Your task to perform on an android device: Open the calendar and show me this week's events Image 0: 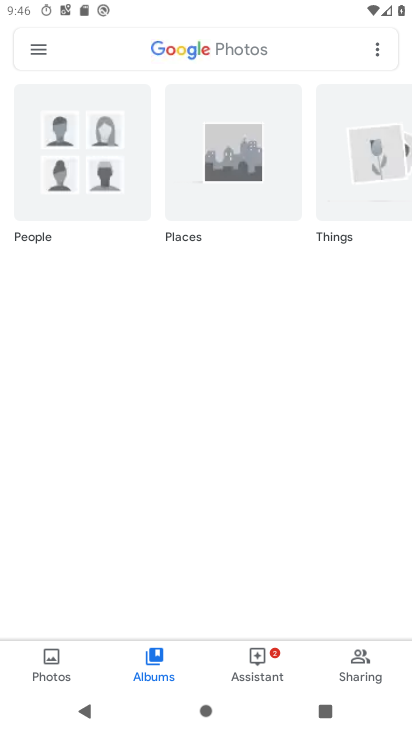
Step 0: press home button
Your task to perform on an android device: Open the calendar and show me this week's events Image 1: 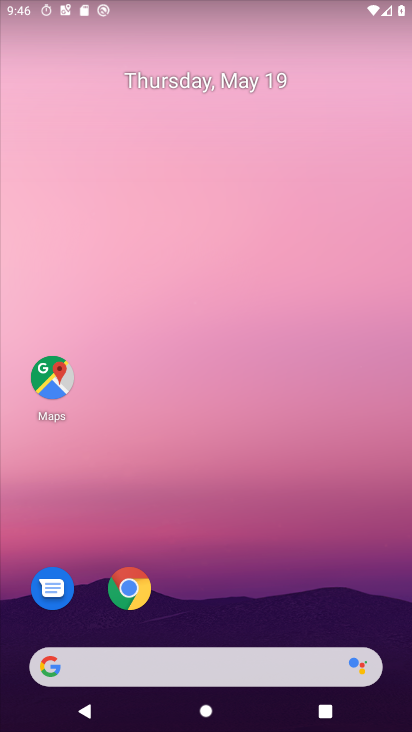
Step 1: drag from (154, 664) to (320, 144)
Your task to perform on an android device: Open the calendar and show me this week's events Image 2: 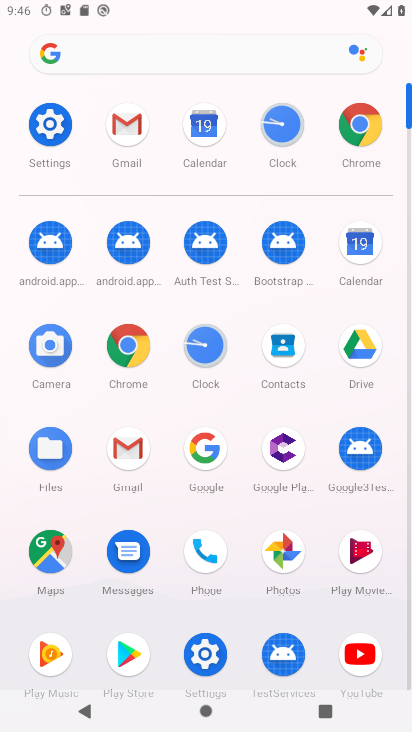
Step 2: click (213, 139)
Your task to perform on an android device: Open the calendar and show me this week's events Image 3: 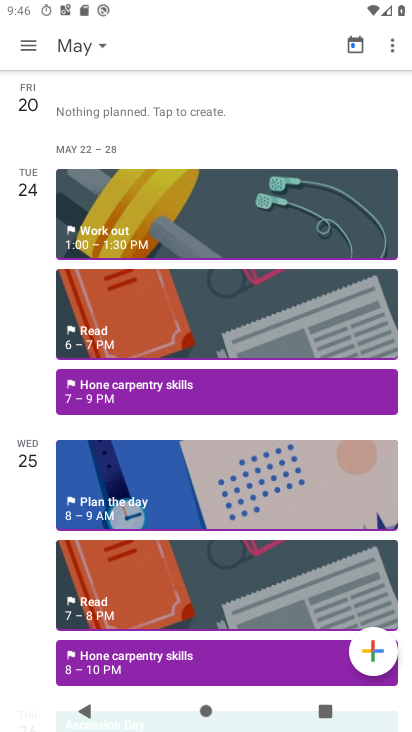
Step 3: click (76, 46)
Your task to perform on an android device: Open the calendar and show me this week's events Image 4: 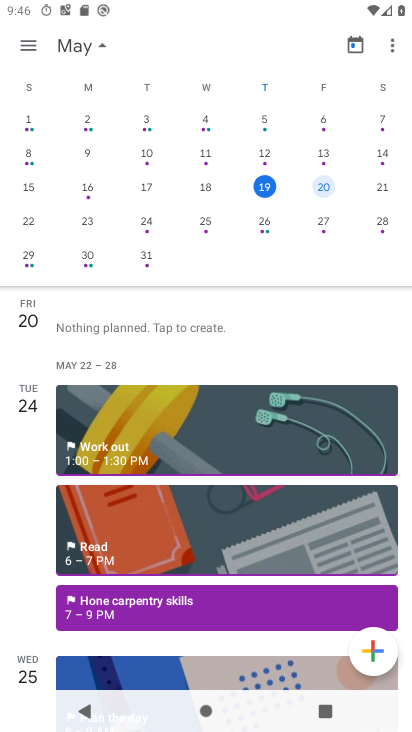
Step 4: click (266, 185)
Your task to perform on an android device: Open the calendar and show me this week's events Image 5: 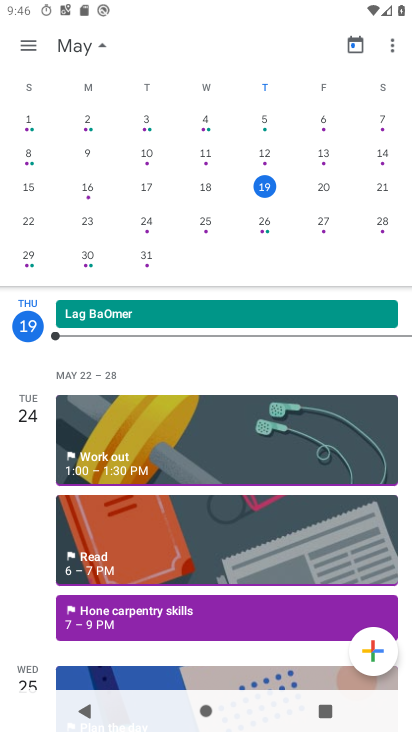
Step 5: click (24, 44)
Your task to perform on an android device: Open the calendar and show me this week's events Image 6: 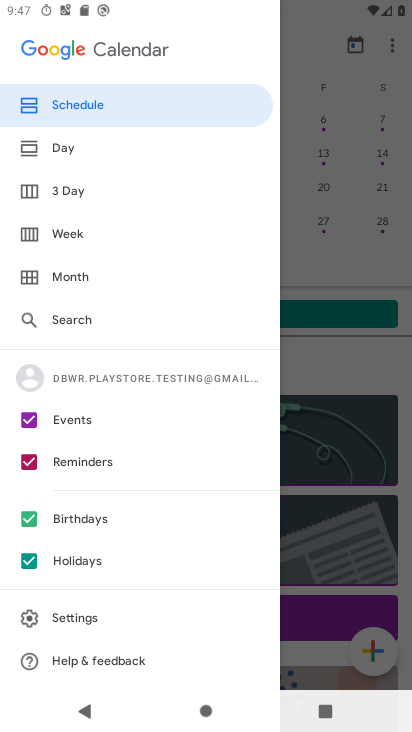
Step 6: click (67, 239)
Your task to perform on an android device: Open the calendar and show me this week's events Image 7: 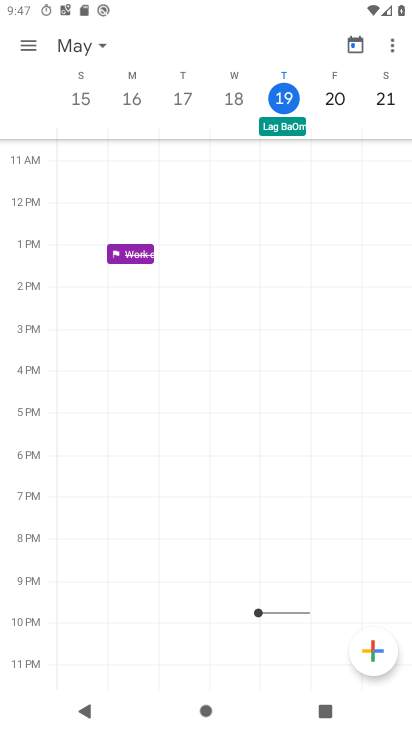
Step 7: click (25, 43)
Your task to perform on an android device: Open the calendar and show me this week's events Image 8: 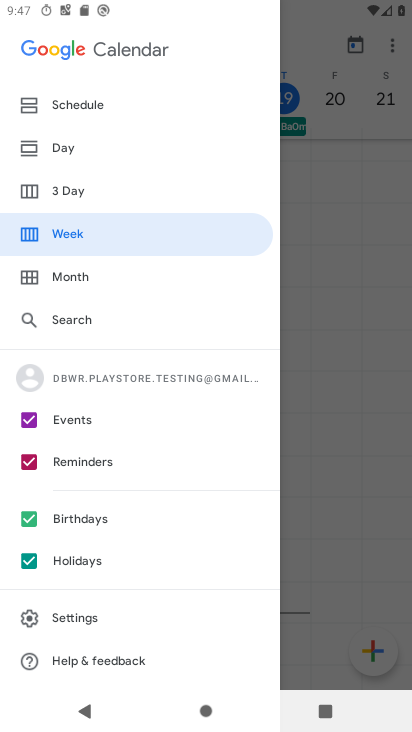
Step 8: click (68, 105)
Your task to perform on an android device: Open the calendar and show me this week's events Image 9: 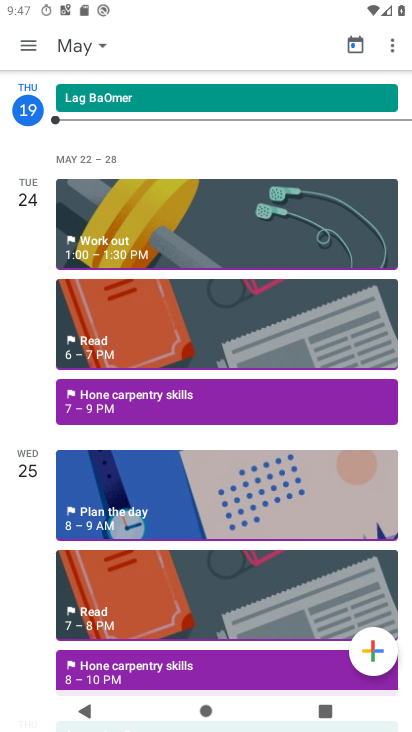
Step 9: drag from (205, 133) to (128, 533)
Your task to perform on an android device: Open the calendar and show me this week's events Image 10: 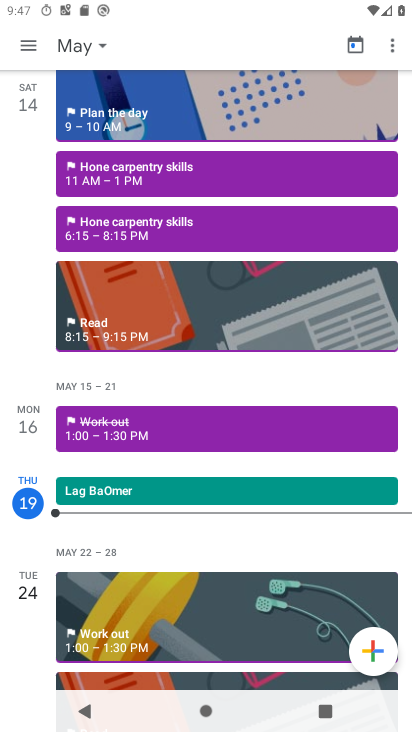
Step 10: click (191, 427)
Your task to perform on an android device: Open the calendar and show me this week's events Image 11: 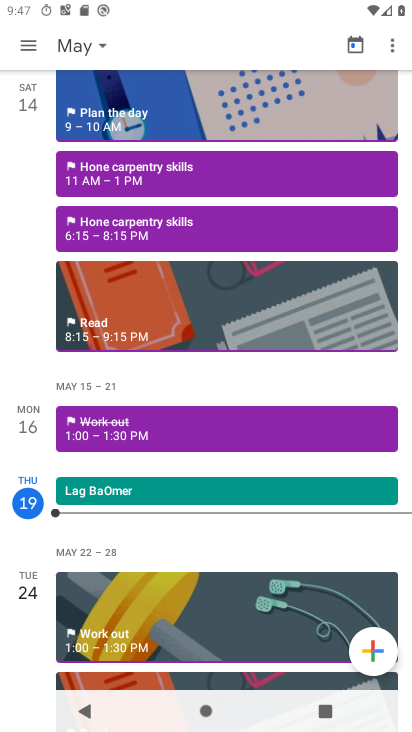
Step 11: task complete